Your task to perform on an android device: Open calendar and show me the fourth week of next month Image 0: 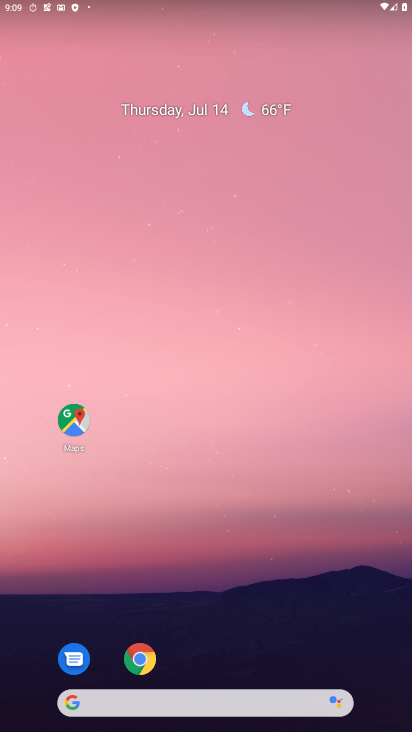
Step 0: press home button
Your task to perform on an android device: Open calendar and show me the fourth week of next month Image 1: 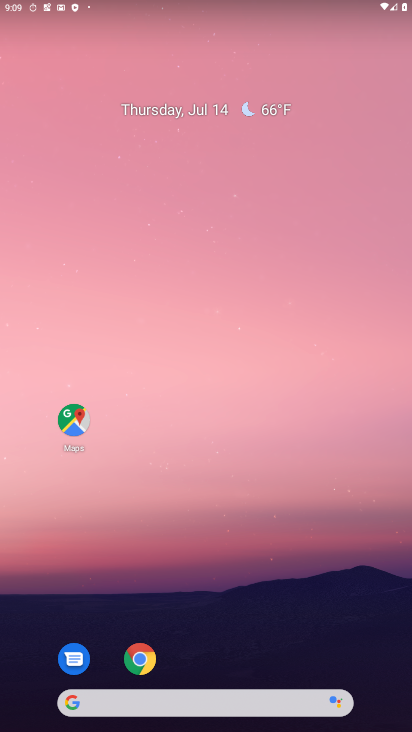
Step 1: drag from (279, 633) to (212, 29)
Your task to perform on an android device: Open calendar and show me the fourth week of next month Image 2: 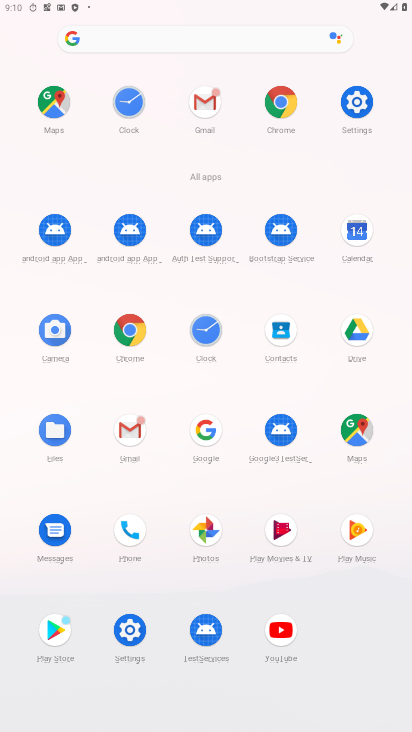
Step 2: click (346, 242)
Your task to perform on an android device: Open calendar and show me the fourth week of next month Image 3: 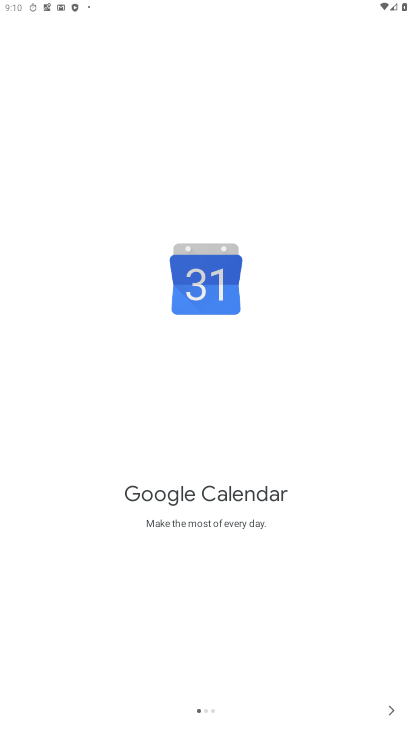
Step 3: click (383, 705)
Your task to perform on an android device: Open calendar and show me the fourth week of next month Image 4: 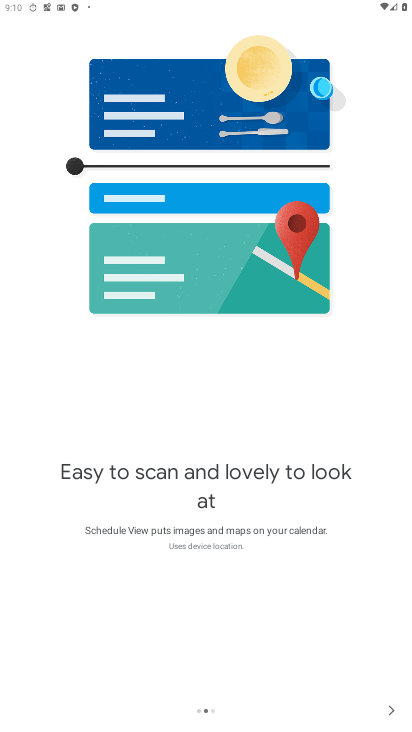
Step 4: click (393, 712)
Your task to perform on an android device: Open calendar and show me the fourth week of next month Image 5: 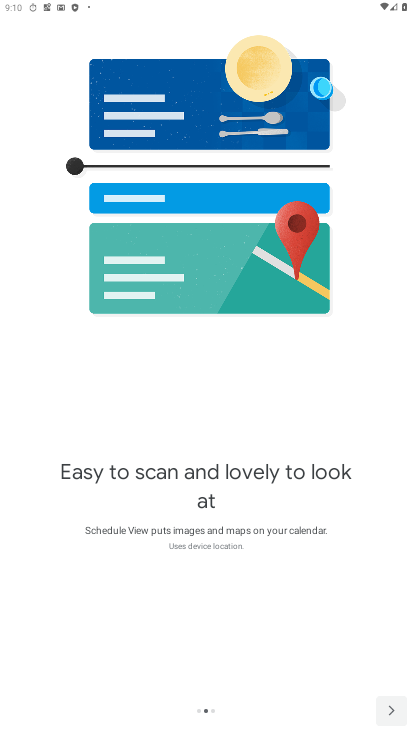
Step 5: click (393, 712)
Your task to perform on an android device: Open calendar and show me the fourth week of next month Image 6: 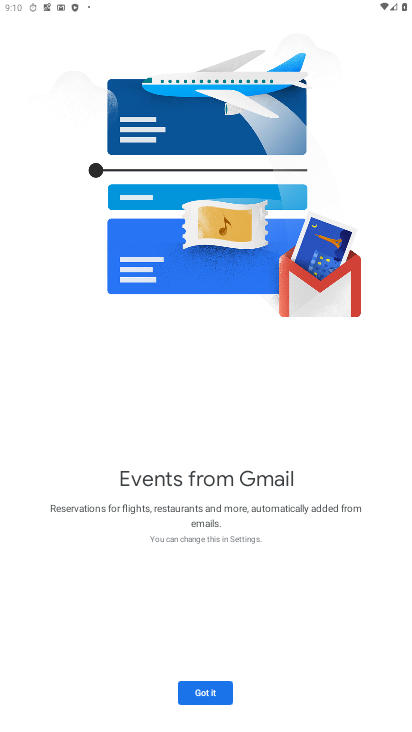
Step 6: click (200, 692)
Your task to perform on an android device: Open calendar and show me the fourth week of next month Image 7: 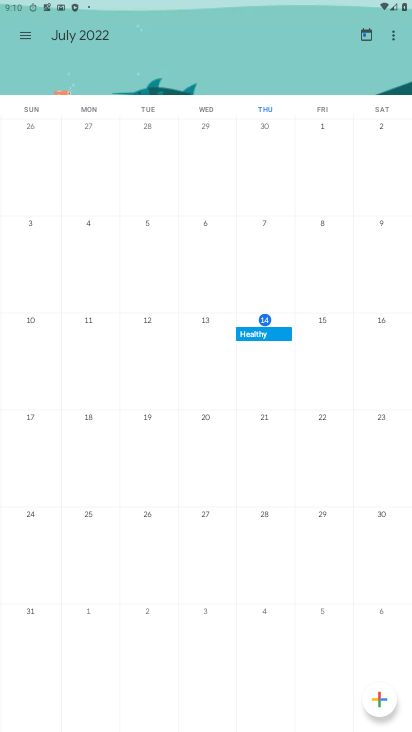
Step 7: drag from (359, 262) to (11, 300)
Your task to perform on an android device: Open calendar and show me the fourth week of next month Image 8: 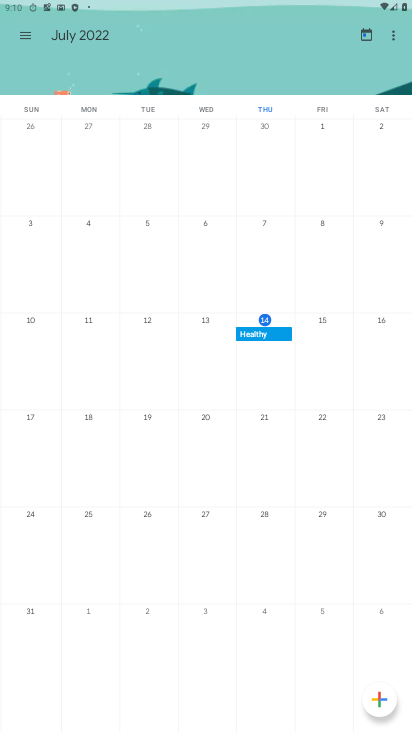
Step 8: drag from (352, 270) to (6, 114)
Your task to perform on an android device: Open calendar and show me the fourth week of next month Image 9: 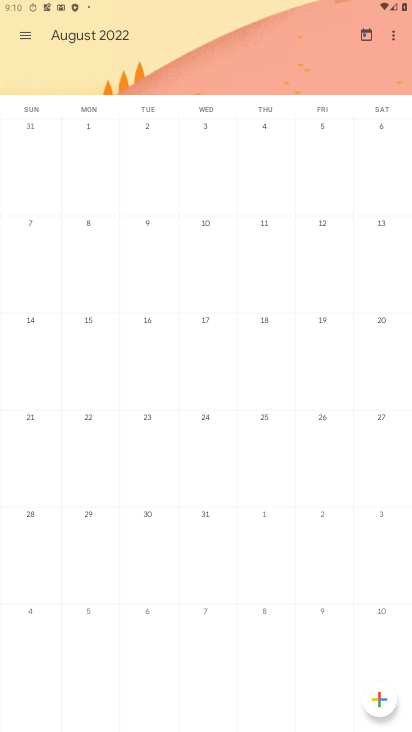
Step 9: click (23, 34)
Your task to perform on an android device: Open calendar and show me the fourth week of next month Image 10: 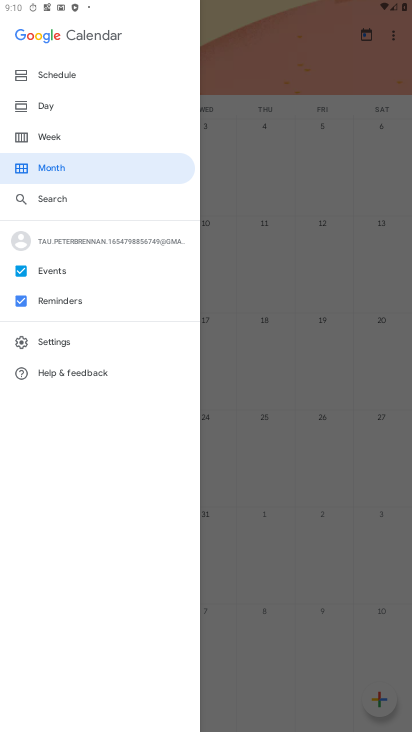
Step 10: click (48, 129)
Your task to perform on an android device: Open calendar and show me the fourth week of next month Image 11: 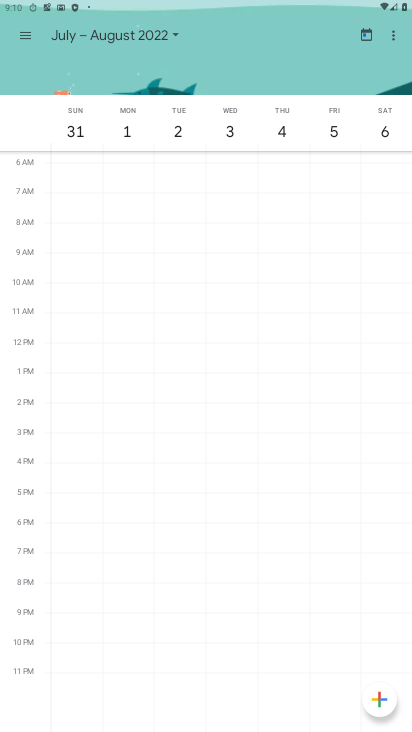
Step 11: task complete